Your task to perform on an android device: Go to network settings Image 0: 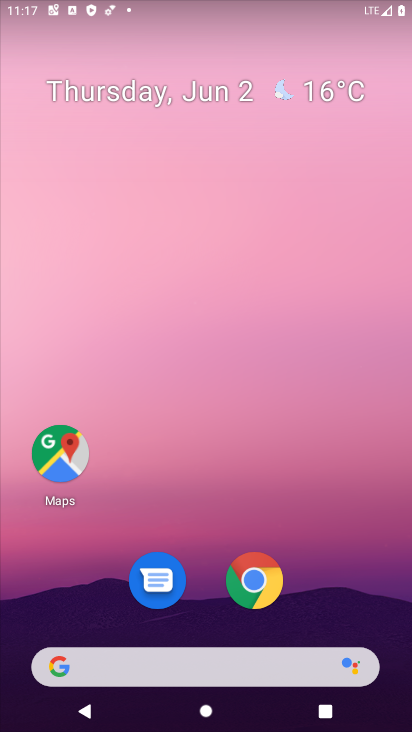
Step 0: drag from (223, 593) to (233, 243)
Your task to perform on an android device: Go to network settings Image 1: 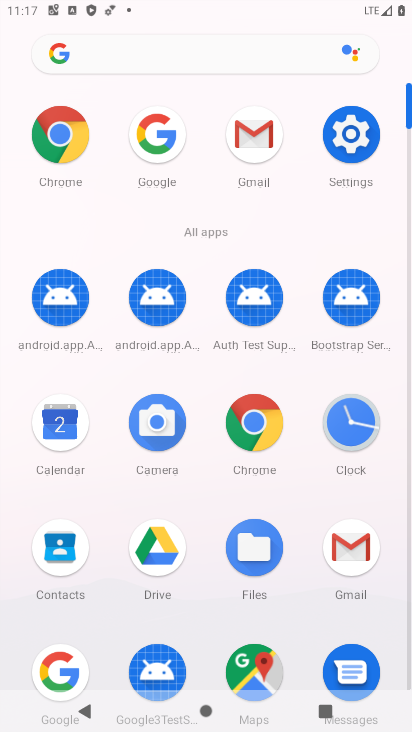
Step 1: click (360, 175)
Your task to perform on an android device: Go to network settings Image 2: 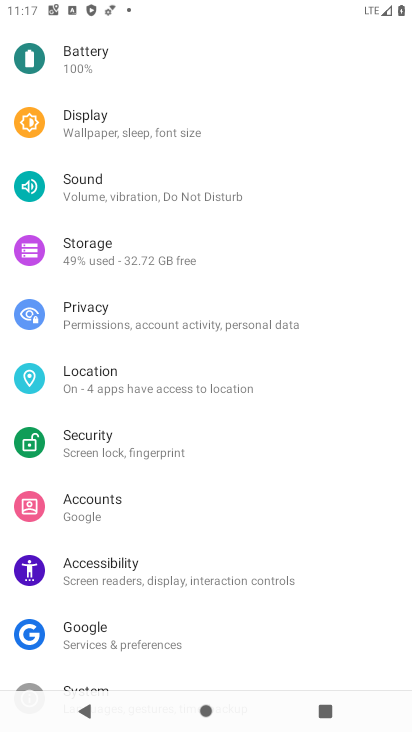
Step 2: drag from (198, 234) to (192, 527)
Your task to perform on an android device: Go to network settings Image 3: 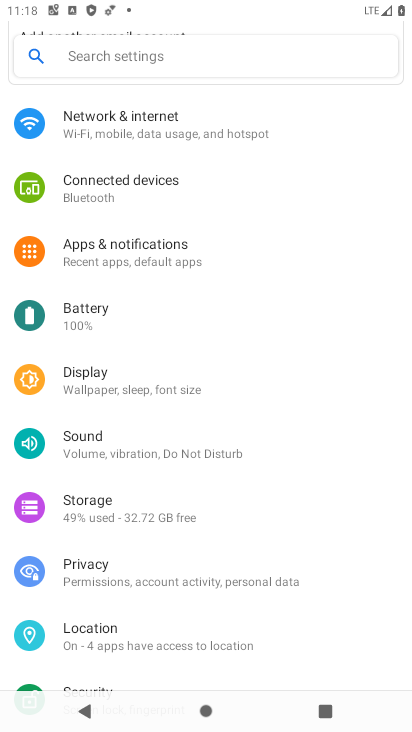
Step 3: click (168, 247)
Your task to perform on an android device: Go to network settings Image 4: 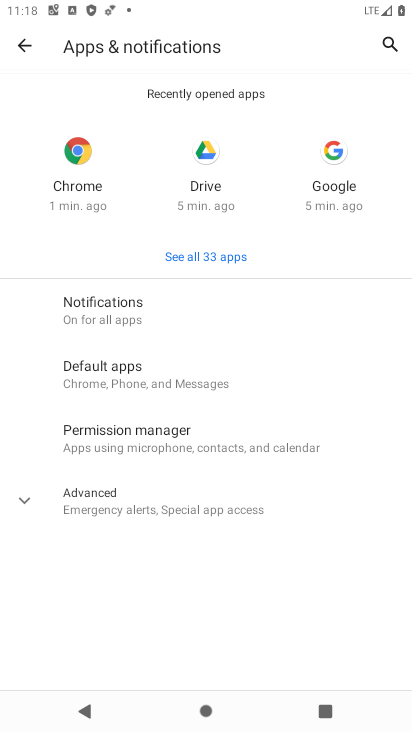
Step 4: click (125, 314)
Your task to perform on an android device: Go to network settings Image 5: 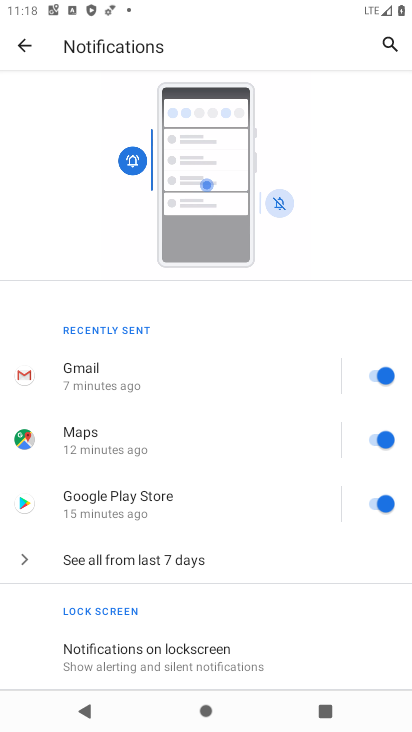
Step 5: task complete